Your task to perform on an android device: open wifi settings Image 0: 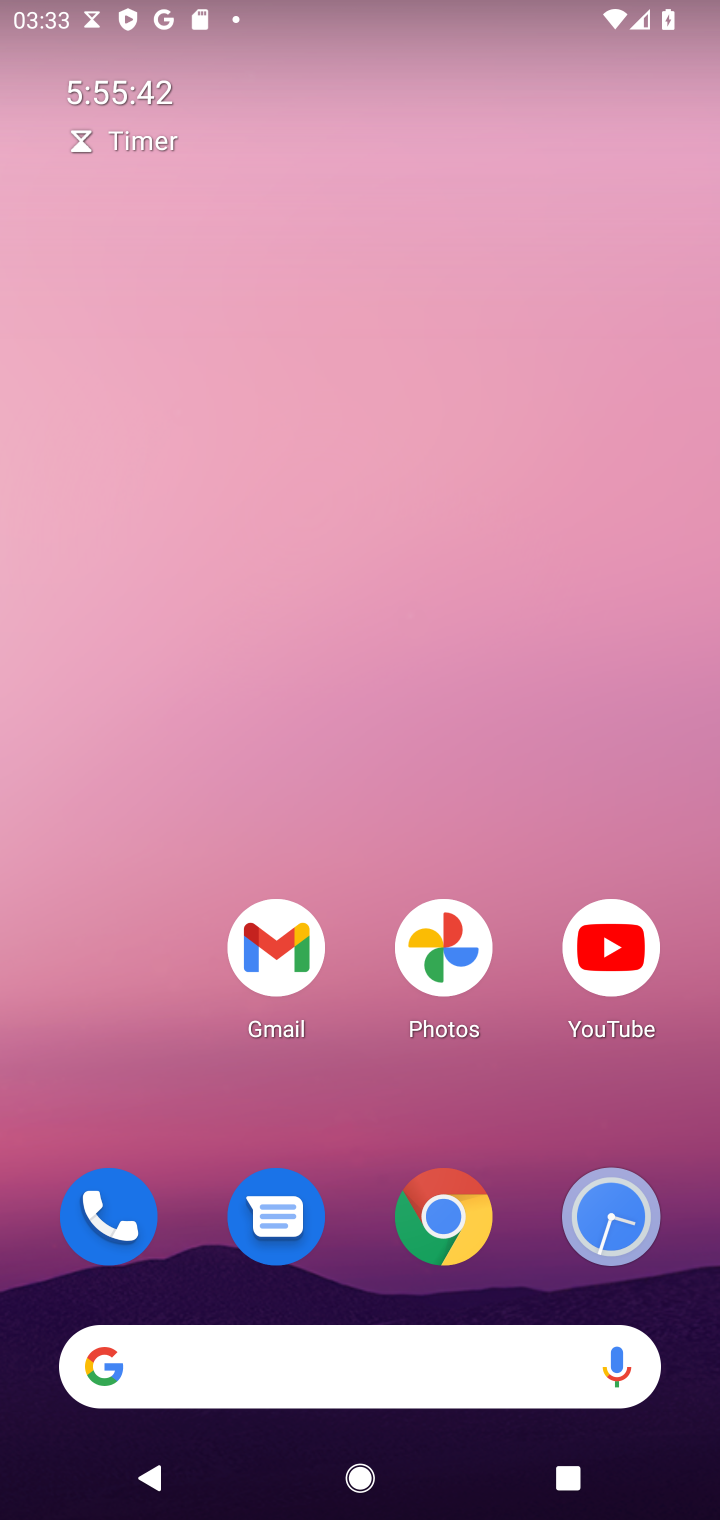
Step 0: drag from (418, 1099) to (402, 63)
Your task to perform on an android device: open wifi settings Image 1: 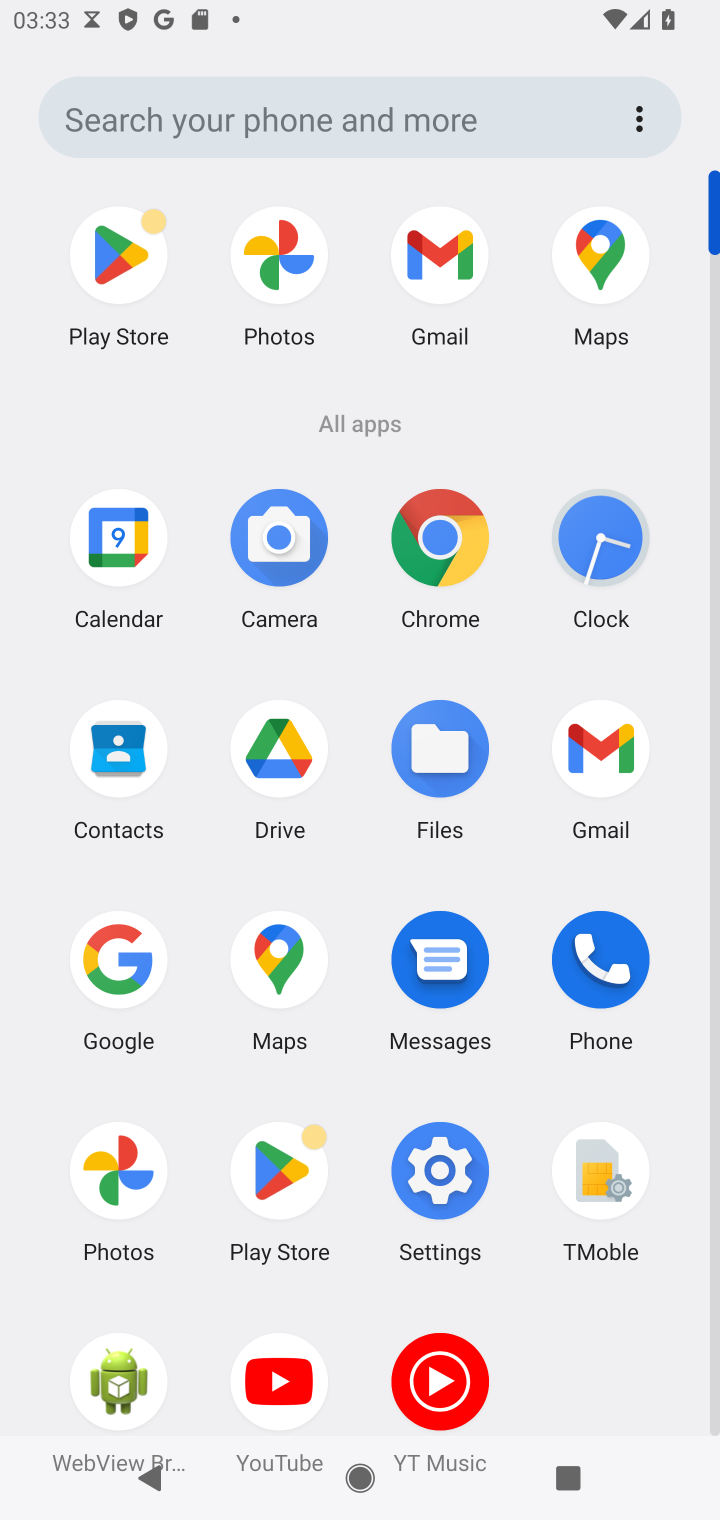
Step 1: click (457, 1151)
Your task to perform on an android device: open wifi settings Image 2: 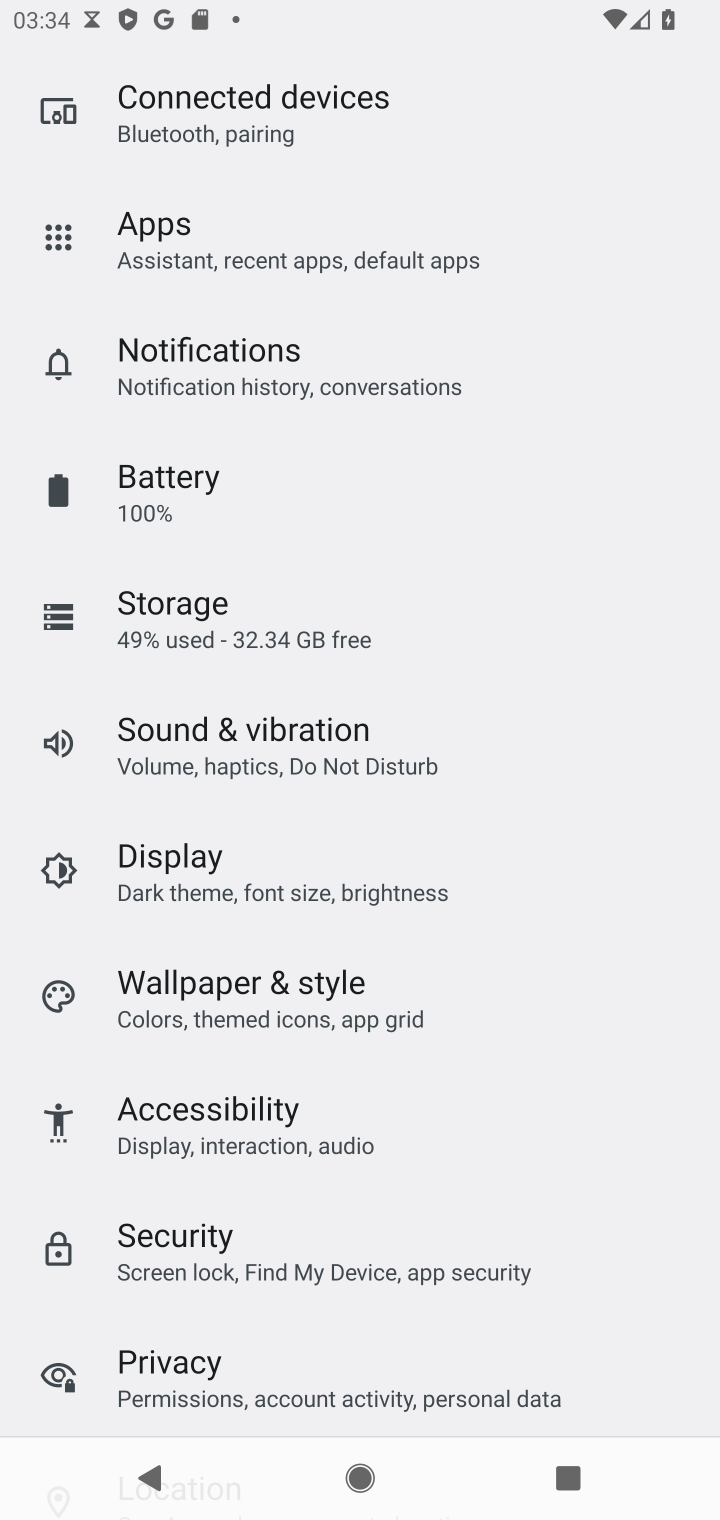
Step 2: drag from (223, 231) to (319, 1162)
Your task to perform on an android device: open wifi settings Image 3: 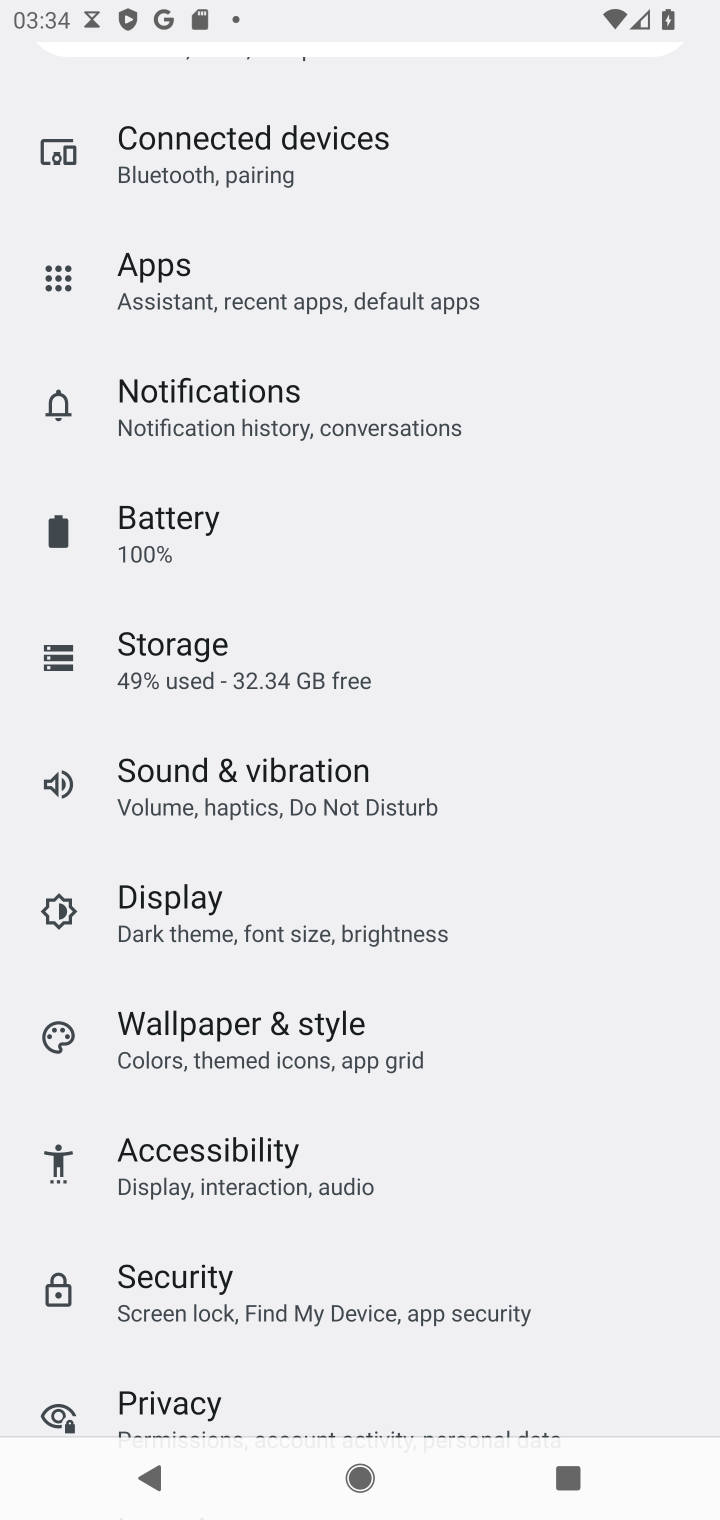
Step 3: drag from (361, 421) to (409, 1011)
Your task to perform on an android device: open wifi settings Image 4: 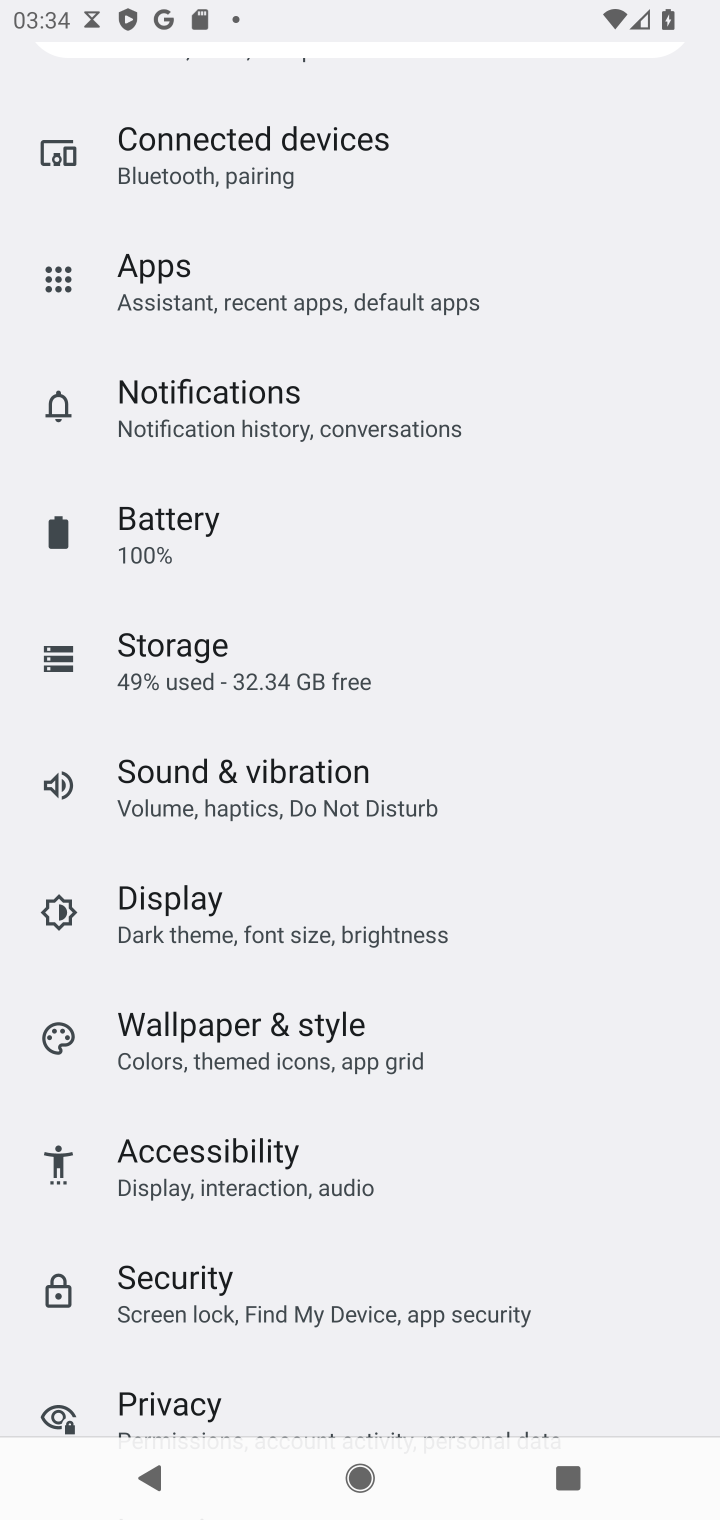
Step 4: drag from (491, 376) to (569, 1059)
Your task to perform on an android device: open wifi settings Image 5: 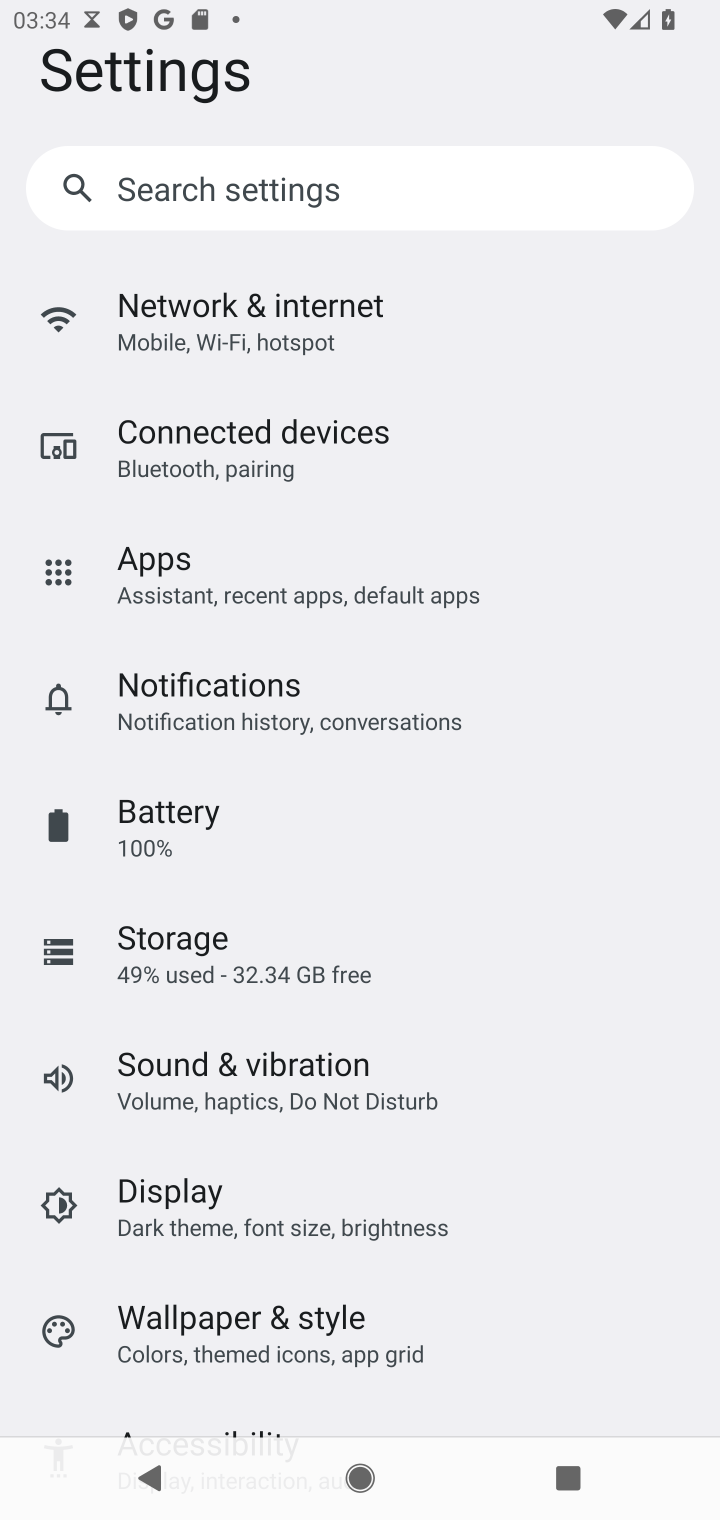
Step 5: click (149, 298)
Your task to perform on an android device: open wifi settings Image 6: 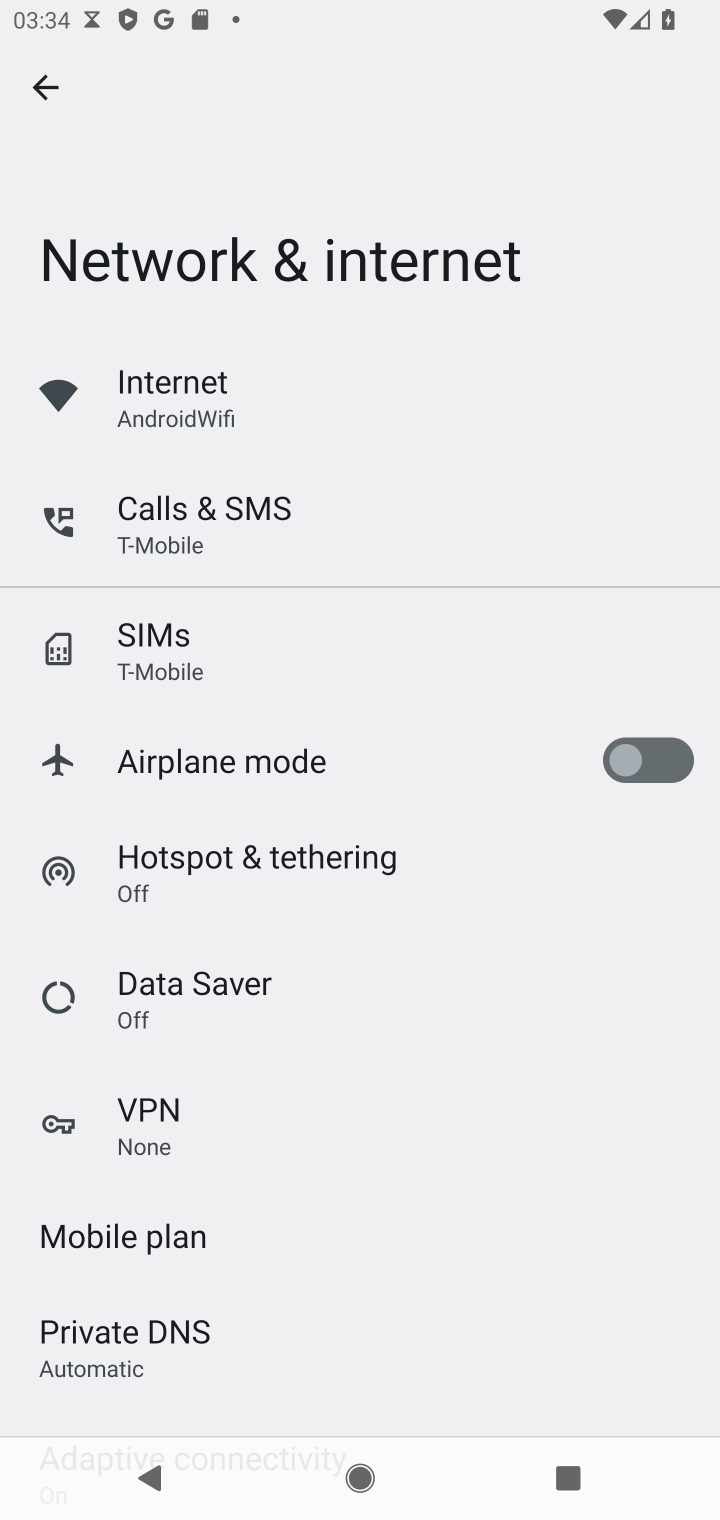
Step 6: click (236, 399)
Your task to perform on an android device: open wifi settings Image 7: 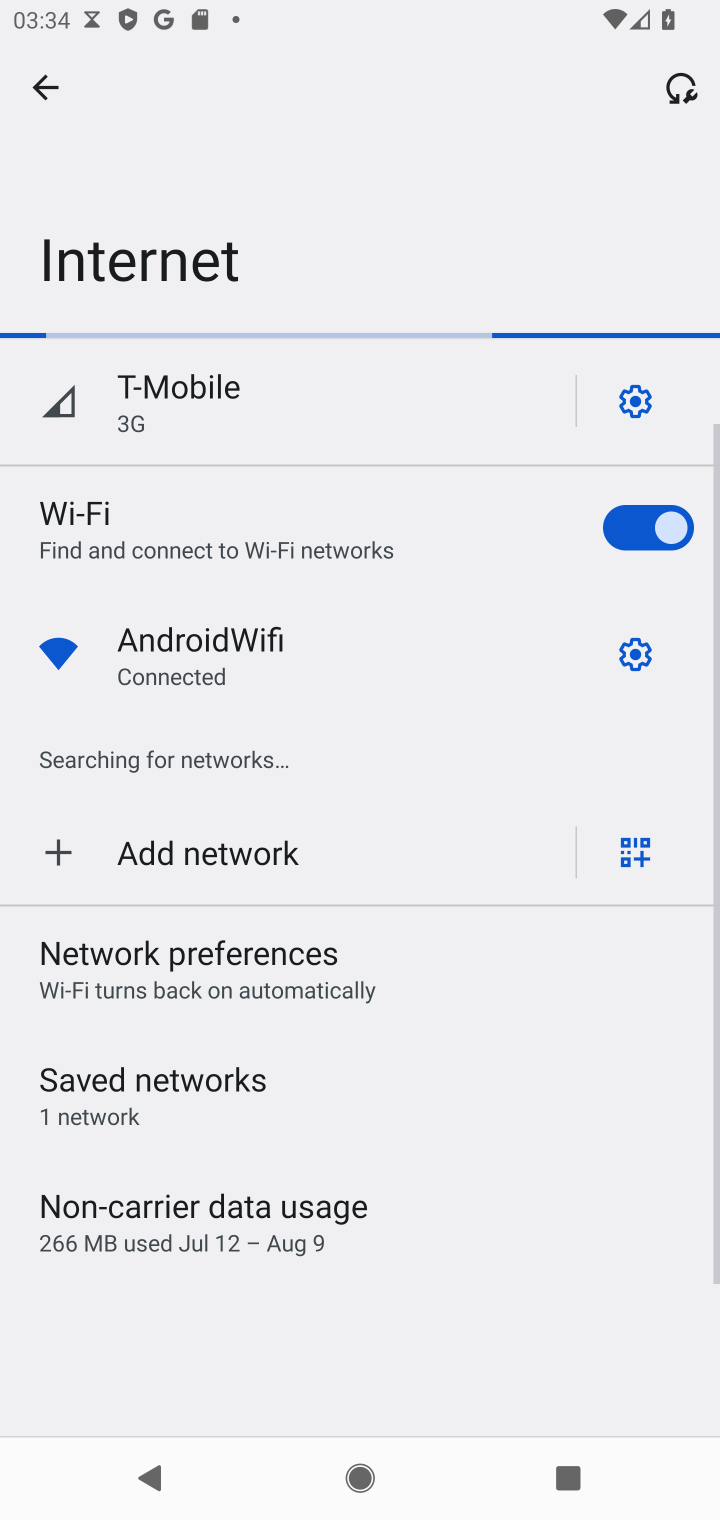
Step 7: click (623, 646)
Your task to perform on an android device: open wifi settings Image 8: 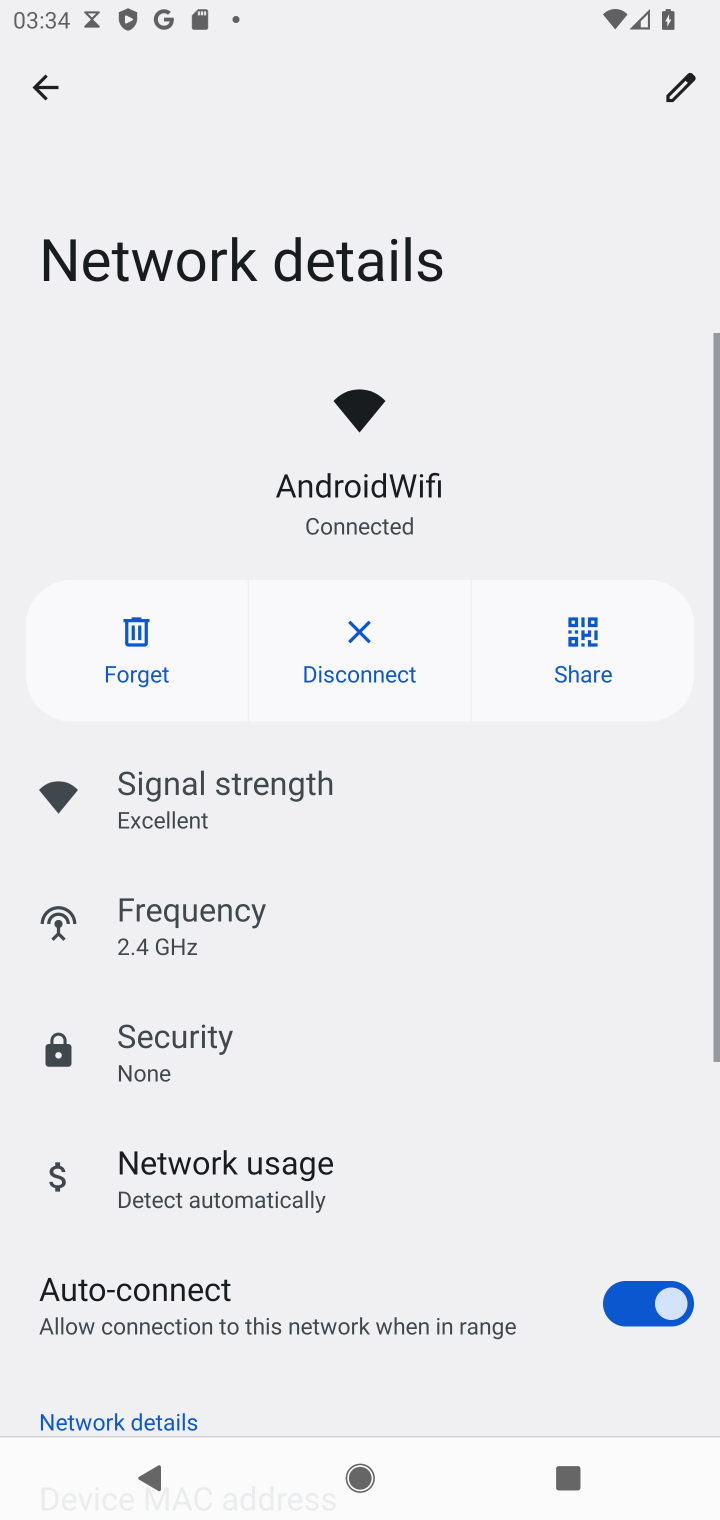
Step 8: task complete